Your task to perform on an android device: Open internet settings Image 0: 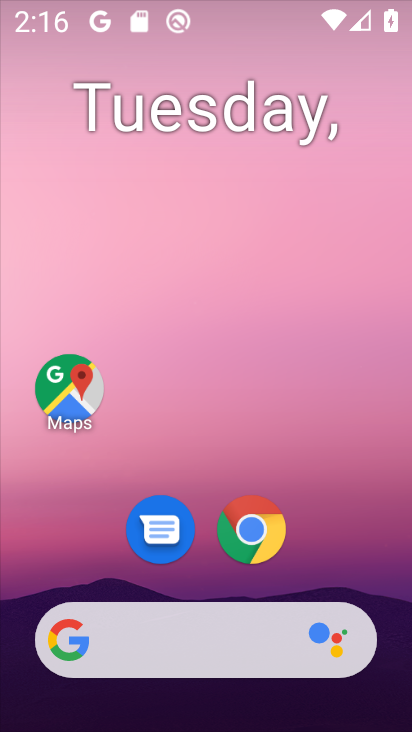
Step 0: drag from (369, 467) to (326, 192)
Your task to perform on an android device: Open internet settings Image 1: 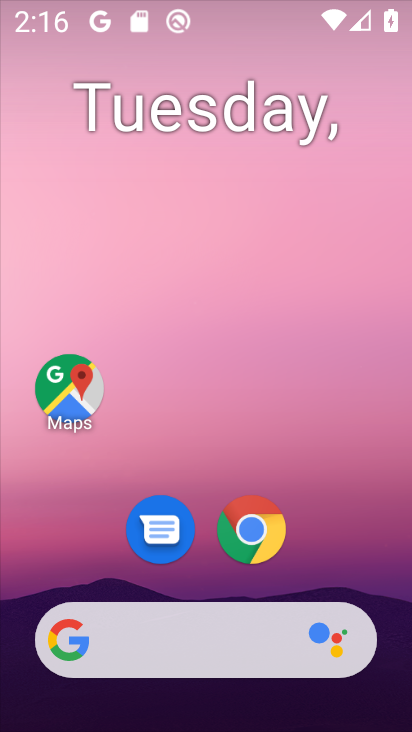
Step 1: drag from (361, 446) to (305, 130)
Your task to perform on an android device: Open internet settings Image 2: 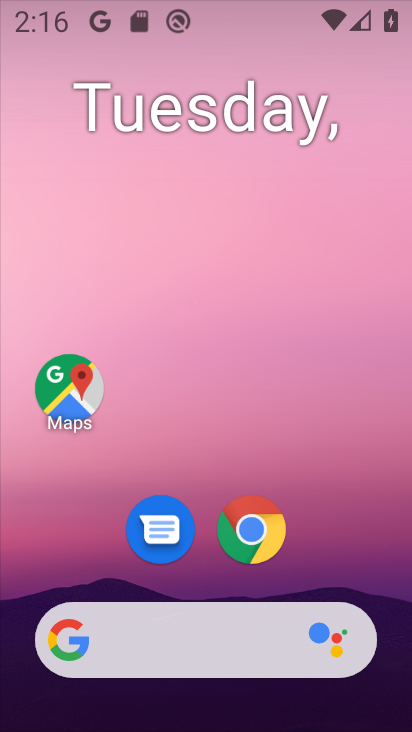
Step 2: drag from (377, 479) to (352, 76)
Your task to perform on an android device: Open internet settings Image 3: 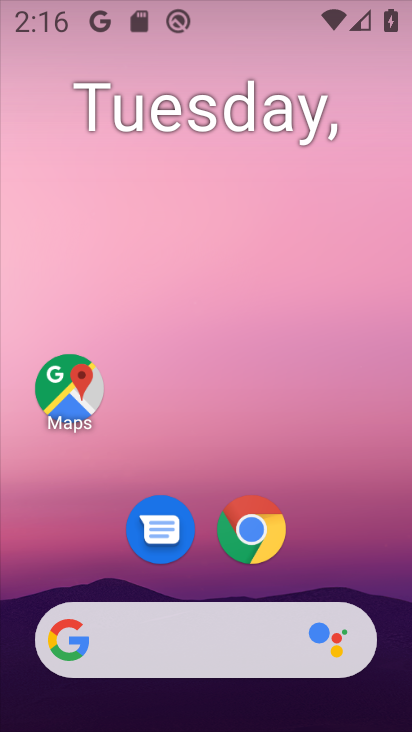
Step 3: drag from (363, 594) to (346, 153)
Your task to perform on an android device: Open internet settings Image 4: 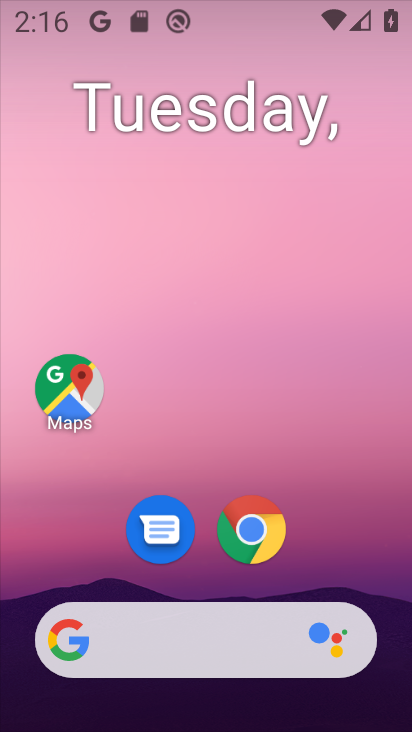
Step 4: drag from (374, 590) to (369, 55)
Your task to perform on an android device: Open internet settings Image 5: 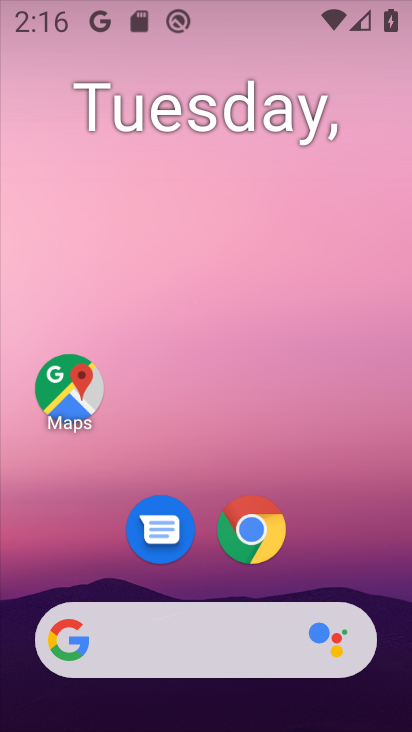
Step 5: drag from (386, 578) to (384, 77)
Your task to perform on an android device: Open internet settings Image 6: 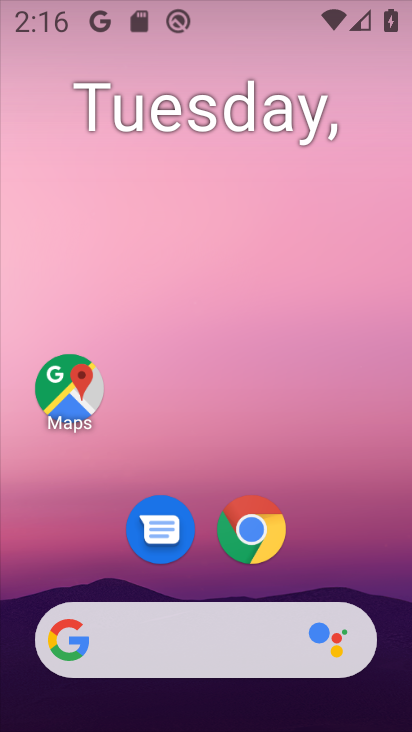
Step 6: drag from (411, 231) to (390, 2)
Your task to perform on an android device: Open internet settings Image 7: 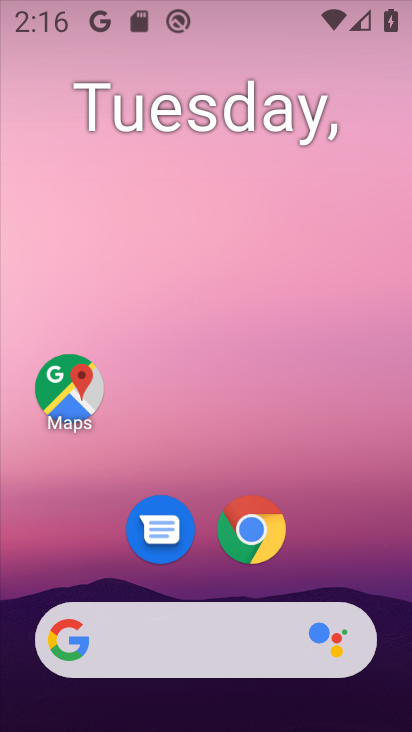
Step 7: click (371, 584)
Your task to perform on an android device: Open internet settings Image 8: 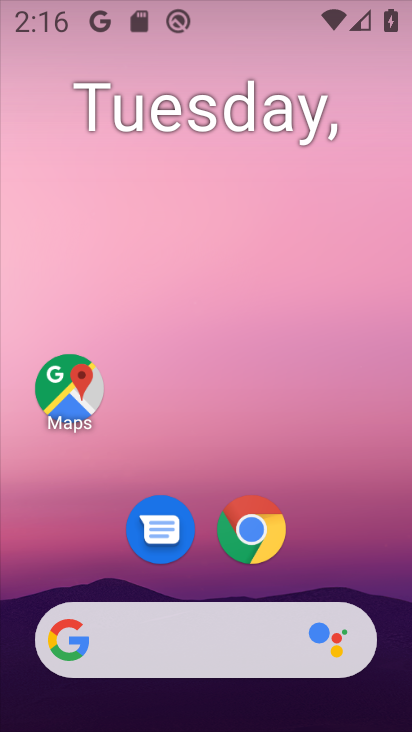
Step 8: click (370, 117)
Your task to perform on an android device: Open internet settings Image 9: 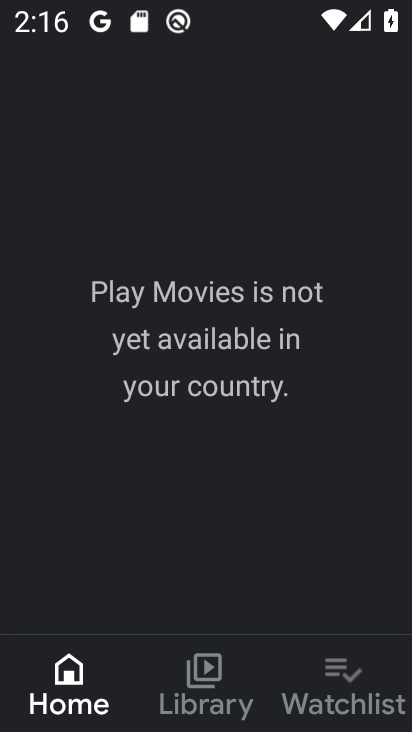
Step 9: press back button
Your task to perform on an android device: Open internet settings Image 10: 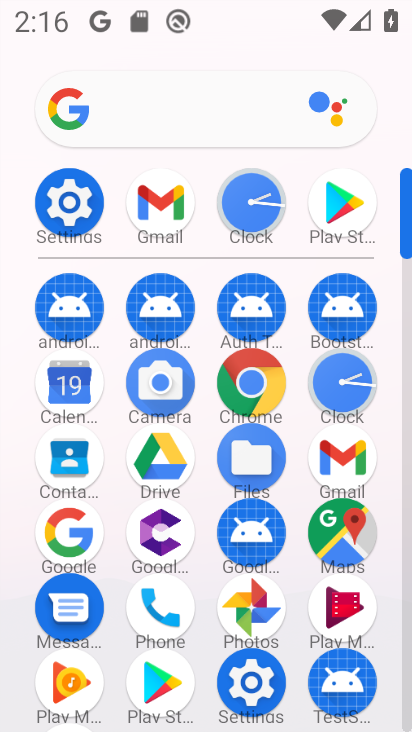
Step 10: click (65, 199)
Your task to perform on an android device: Open internet settings Image 11: 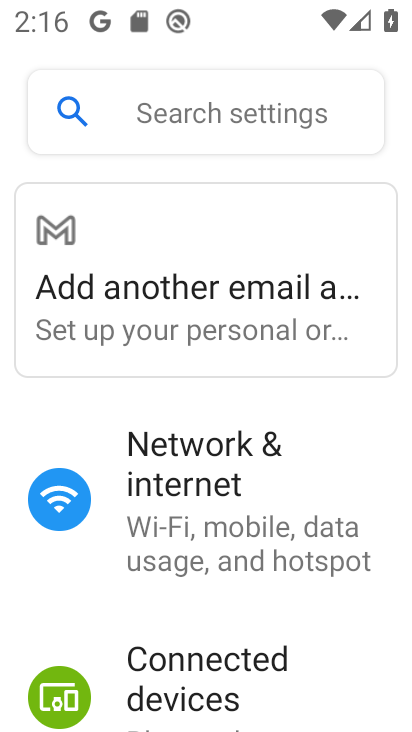
Step 11: click (147, 466)
Your task to perform on an android device: Open internet settings Image 12: 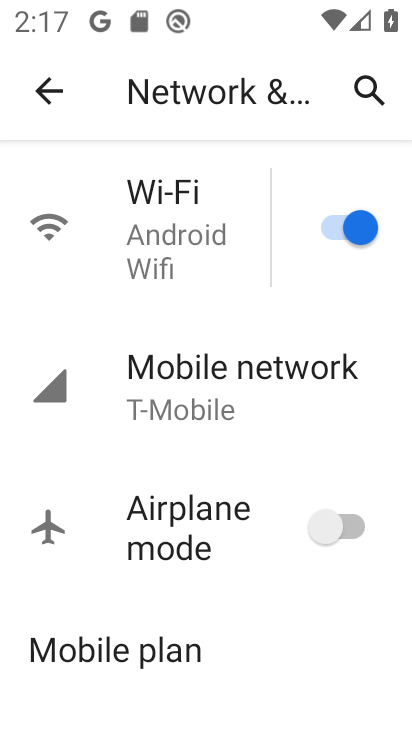
Step 12: click (179, 370)
Your task to perform on an android device: Open internet settings Image 13: 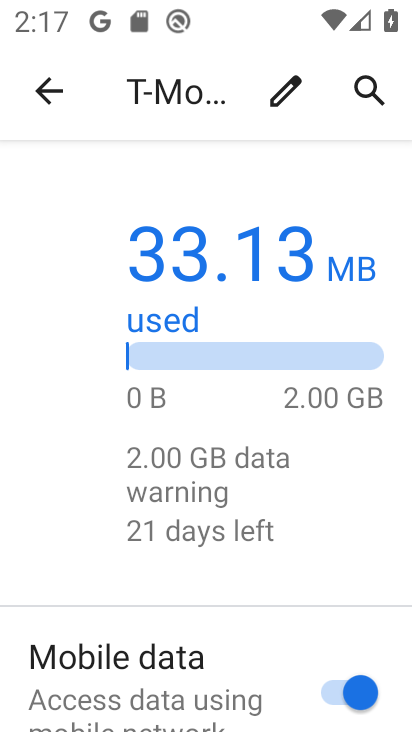
Step 13: task complete